Your task to perform on an android device: Go to Yahoo.com Image 0: 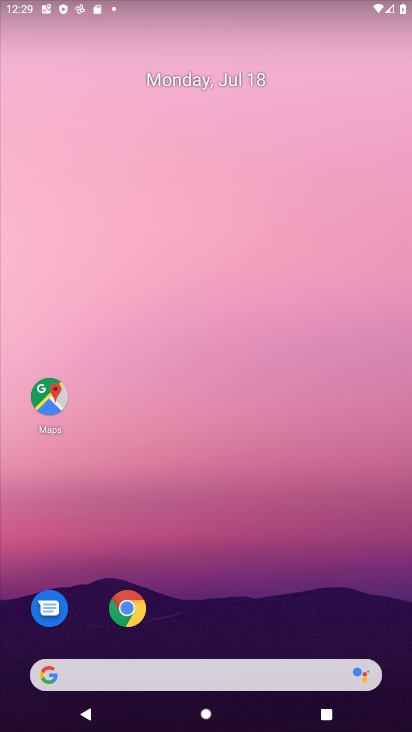
Step 0: drag from (400, 647) to (239, 65)
Your task to perform on an android device: Go to Yahoo.com Image 1: 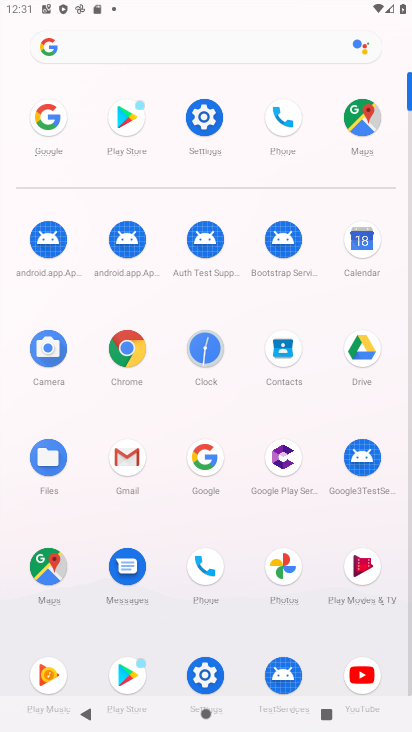
Step 1: click (209, 469)
Your task to perform on an android device: Go to Yahoo.com Image 2: 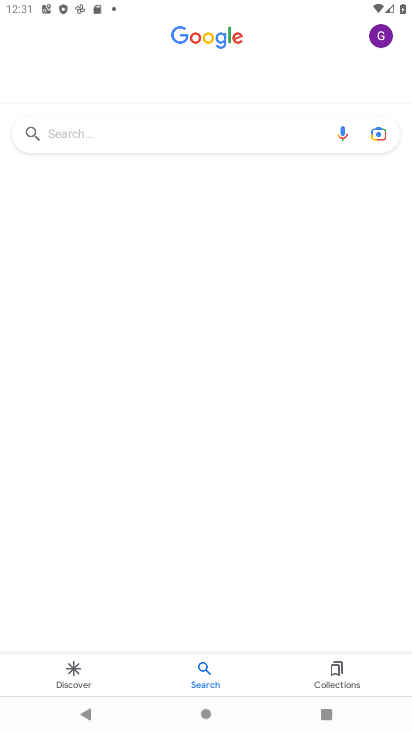
Step 2: click (122, 149)
Your task to perform on an android device: Go to Yahoo.com Image 3: 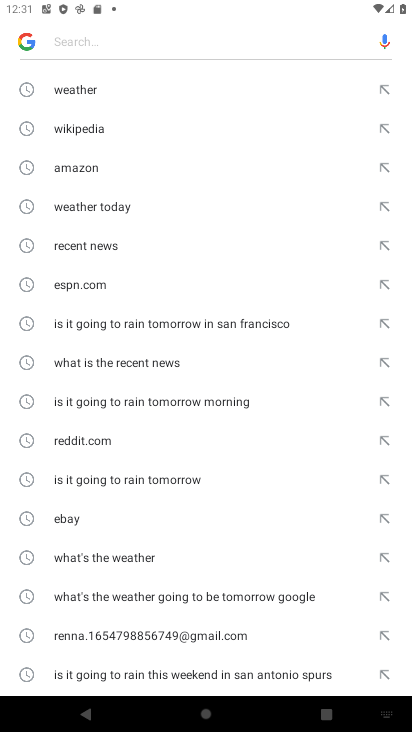
Step 3: type "Yahoo.com"
Your task to perform on an android device: Go to Yahoo.com Image 4: 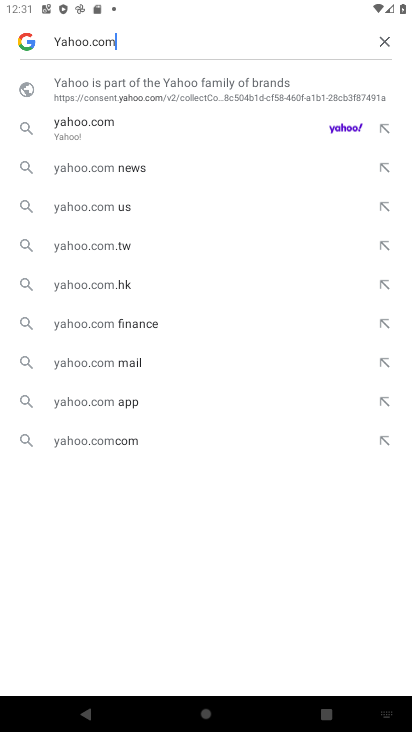
Step 4: click (92, 85)
Your task to perform on an android device: Go to Yahoo.com Image 5: 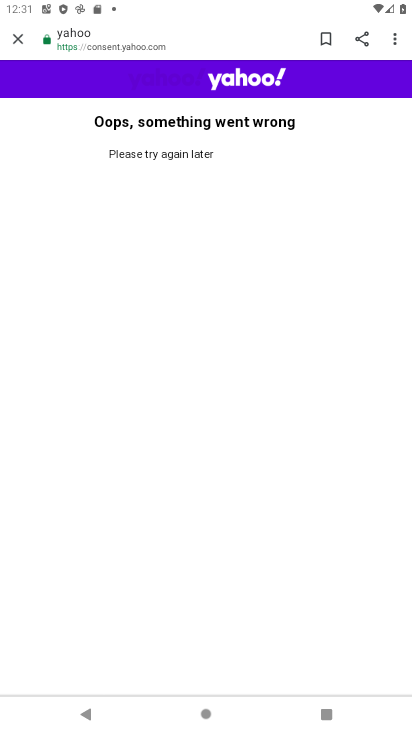
Step 5: task complete